Your task to perform on an android device: Find coffee shops on Maps Image 0: 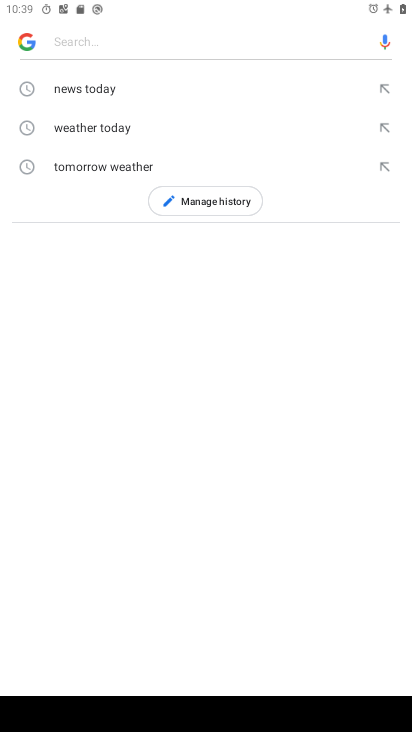
Step 0: press home button
Your task to perform on an android device: Find coffee shops on Maps Image 1: 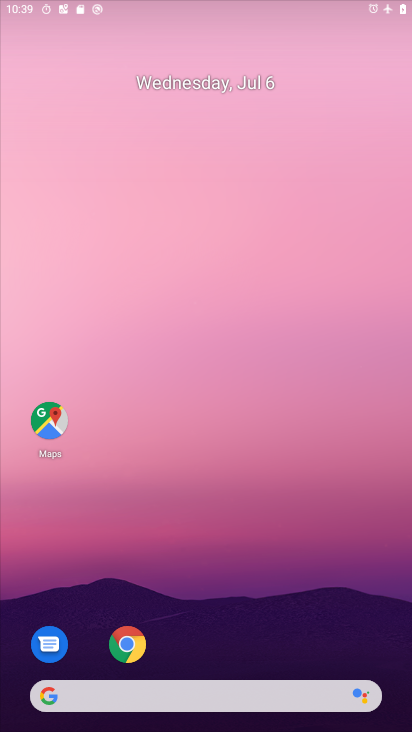
Step 1: drag from (184, 643) to (219, 42)
Your task to perform on an android device: Find coffee shops on Maps Image 2: 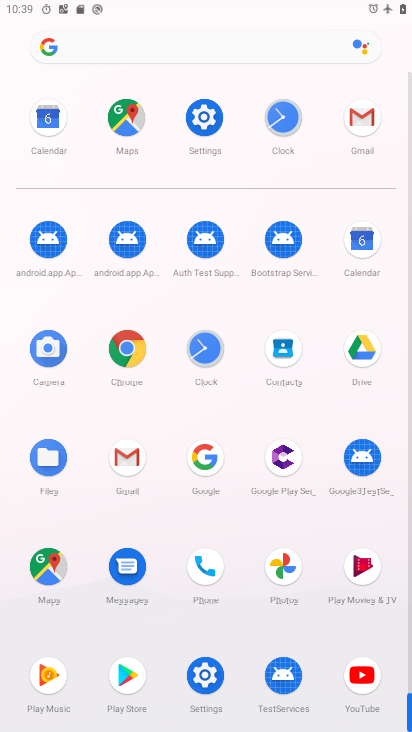
Step 2: click (46, 583)
Your task to perform on an android device: Find coffee shops on Maps Image 3: 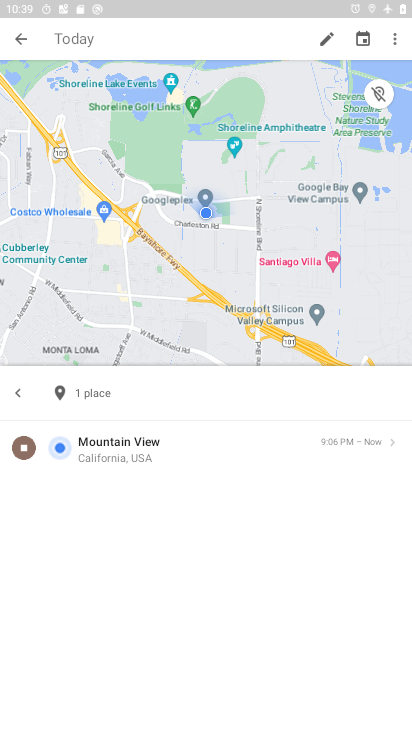
Step 3: click (21, 40)
Your task to perform on an android device: Find coffee shops on Maps Image 4: 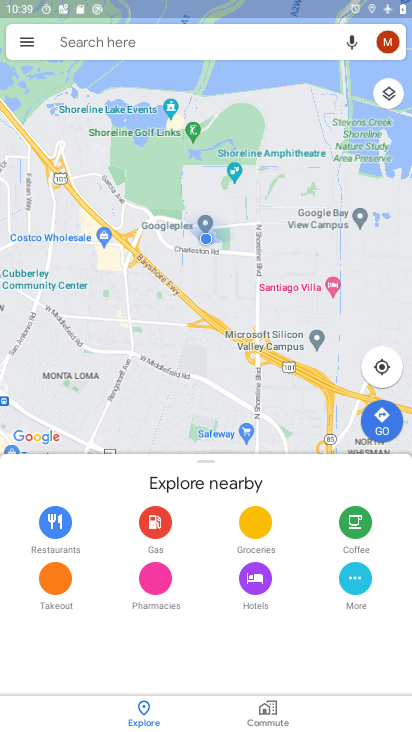
Step 4: click (199, 42)
Your task to perform on an android device: Find coffee shops on Maps Image 5: 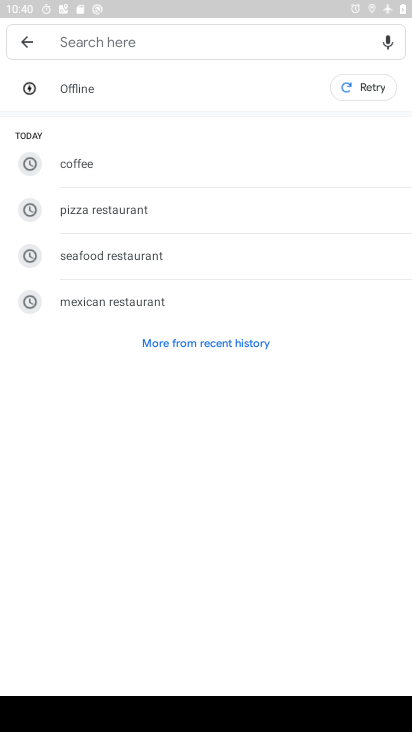
Step 5: click (99, 162)
Your task to perform on an android device: Find coffee shops on Maps Image 6: 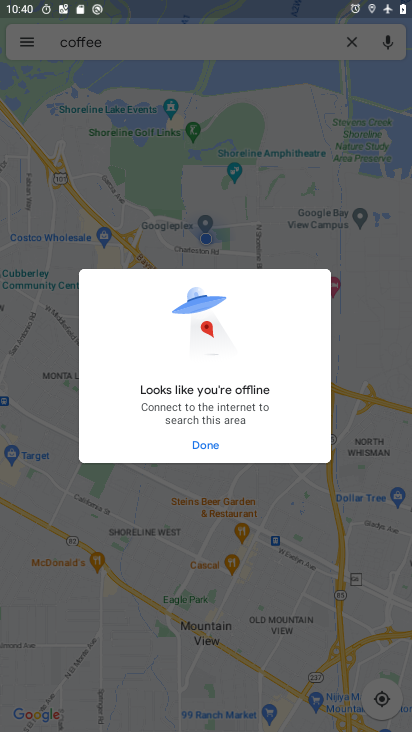
Step 6: task complete